Your task to perform on an android device: Search for Italian restaurants on Maps Image 0: 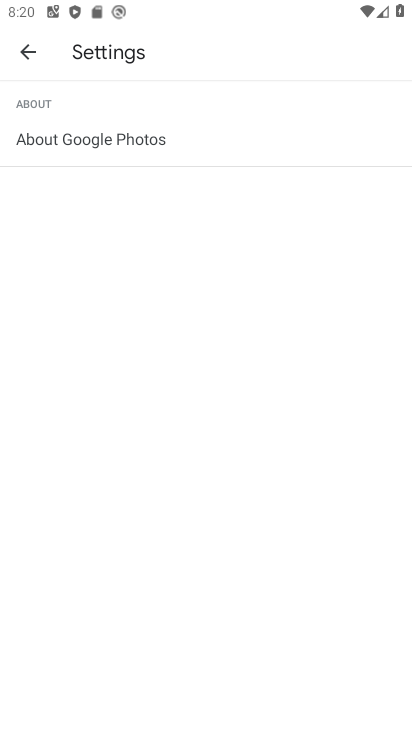
Step 0: press home button
Your task to perform on an android device: Search for Italian restaurants on Maps Image 1: 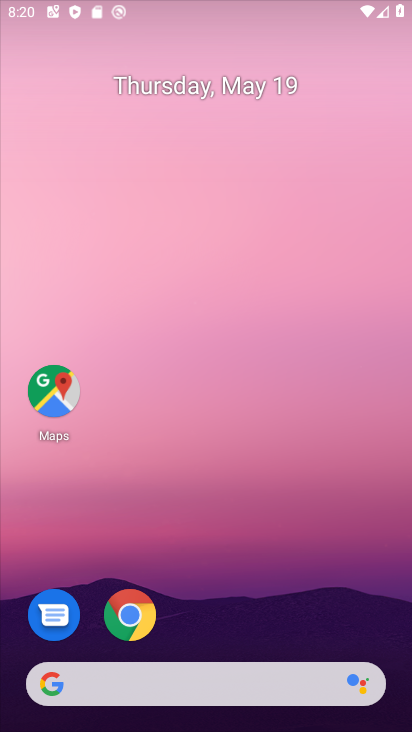
Step 1: drag from (216, 610) to (234, 27)
Your task to perform on an android device: Search for Italian restaurants on Maps Image 2: 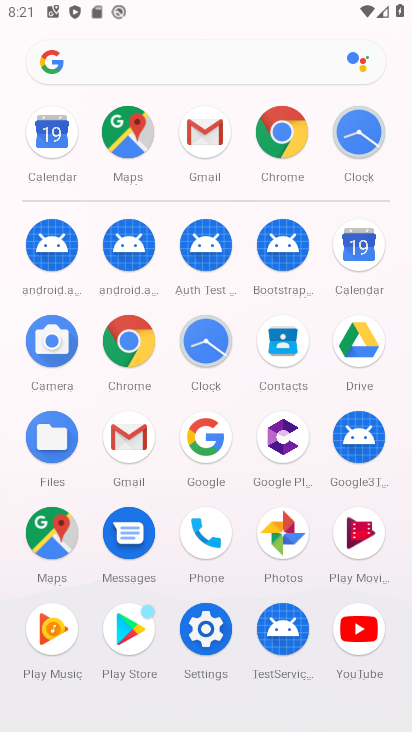
Step 2: drag from (219, 383) to (243, 238)
Your task to perform on an android device: Search for Italian restaurants on Maps Image 3: 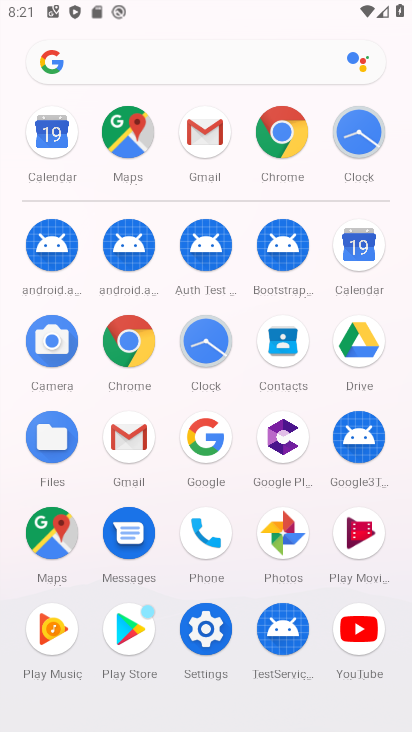
Step 3: click (56, 546)
Your task to perform on an android device: Search for Italian restaurants on Maps Image 4: 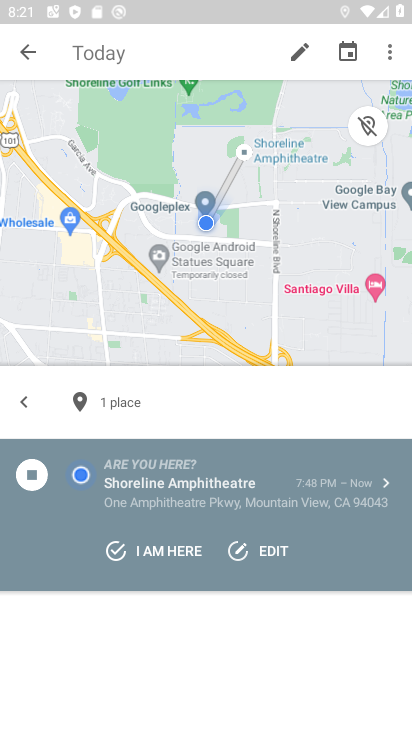
Step 4: click (32, 47)
Your task to perform on an android device: Search for Italian restaurants on Maps Image 5: 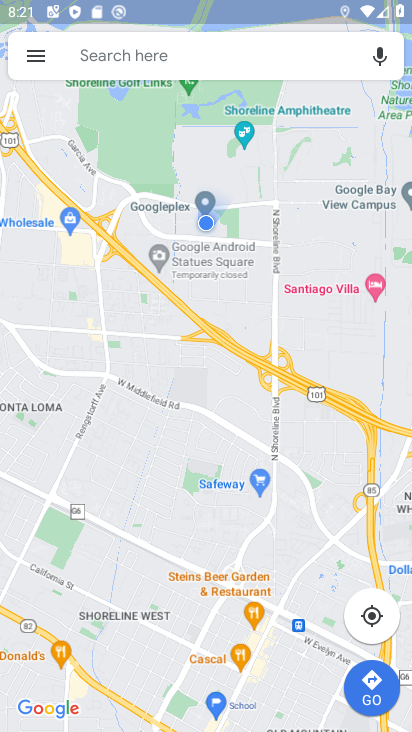
Step 5: click (171, 49)
Your task to perform on an android device: Search for Italian restaurants on Maps Image 6: 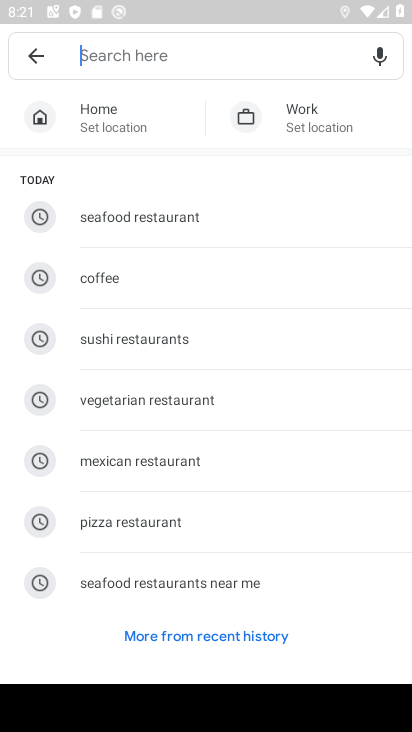
Step 6: drag from (181, 470) to (217, 351)
Your task to perform on an android device: Search for Italian restaurants on Maps Image 7: 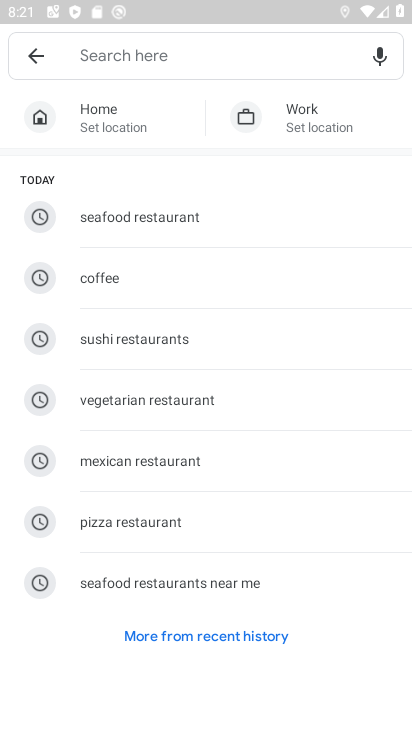
Step 7: click (275, 51)
Your task to perform on an android device: Search for Italian restaurants on Maps Image 8: 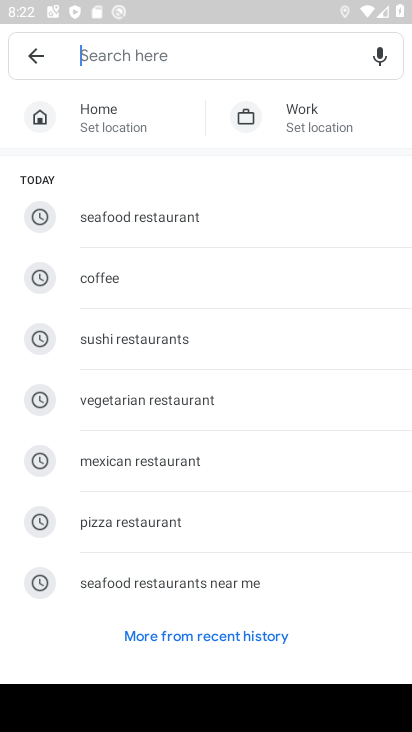
Step 8: type "italian "
Your task to perform on an android device: Search for Italian restaurants on Maps Image 9: 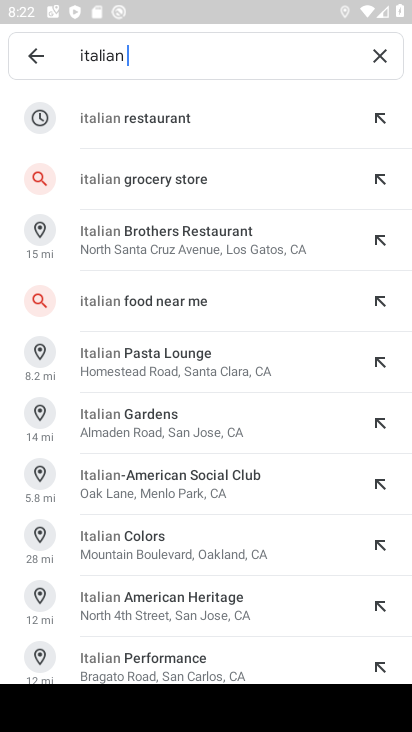
Step 9: click (208, 118)
Your task to perform on an android device: Search for Italian restaurants on Maps Image 10: 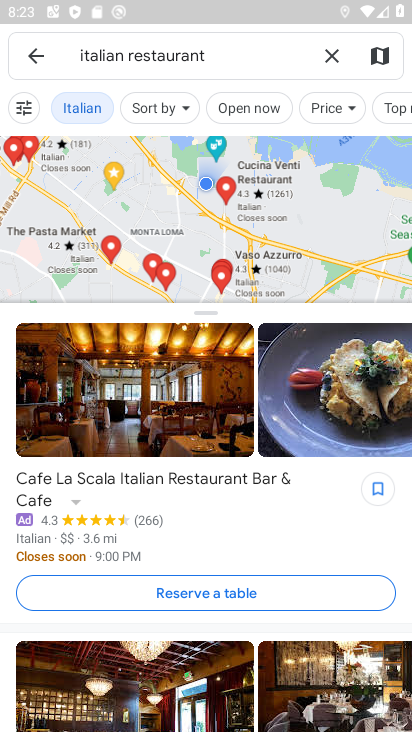
Step 10: task complete